Your task to perform on an android device: turn pop-ups off in chrome Image 0: 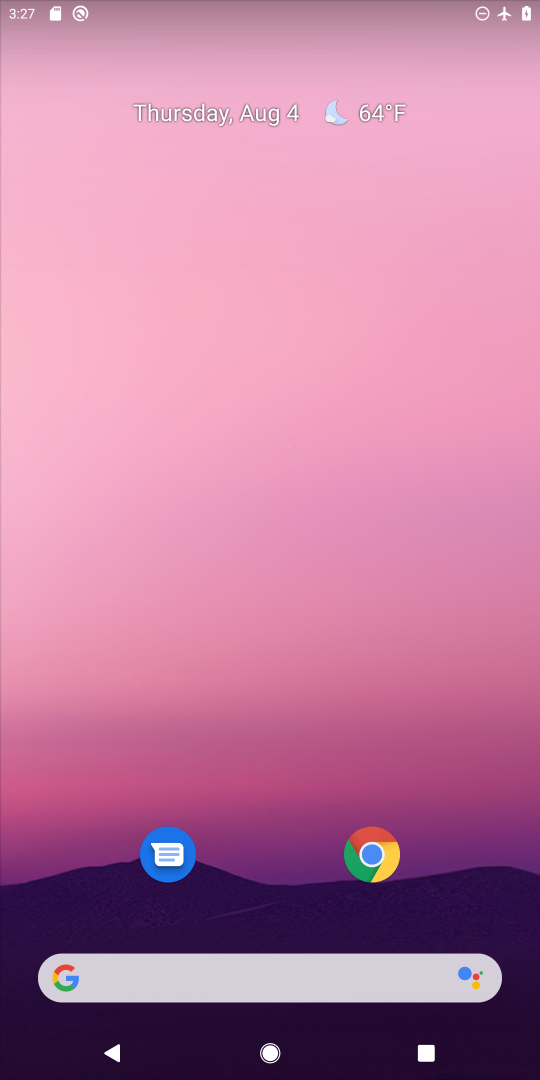
Step 0: click (351, 842)
Your task to perform on an android device: turn pop-ups off in chrome Image 1: 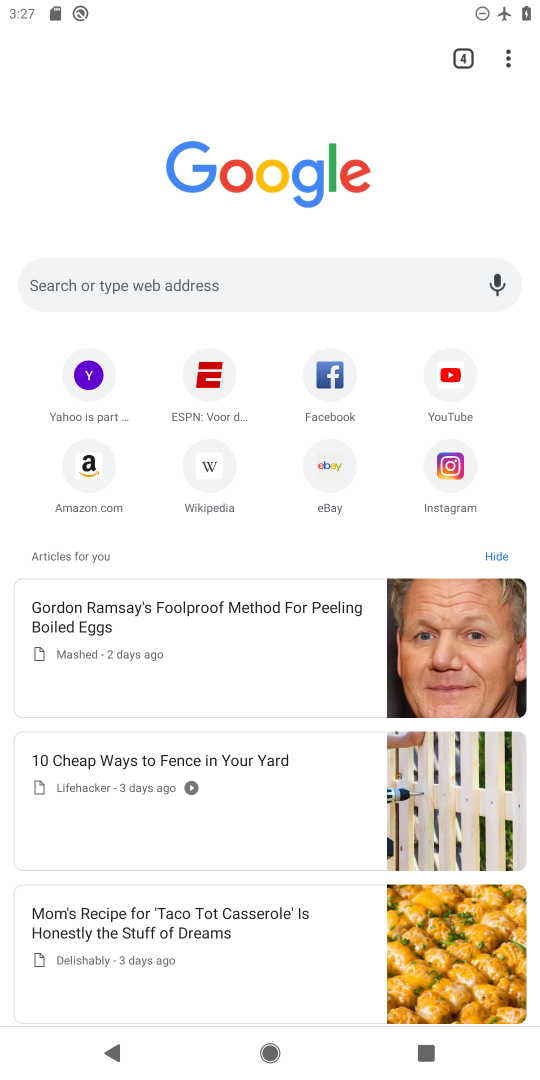
Step 1: task complete